Your task to perform on an android device: empty trash in the gmail app Image 0: 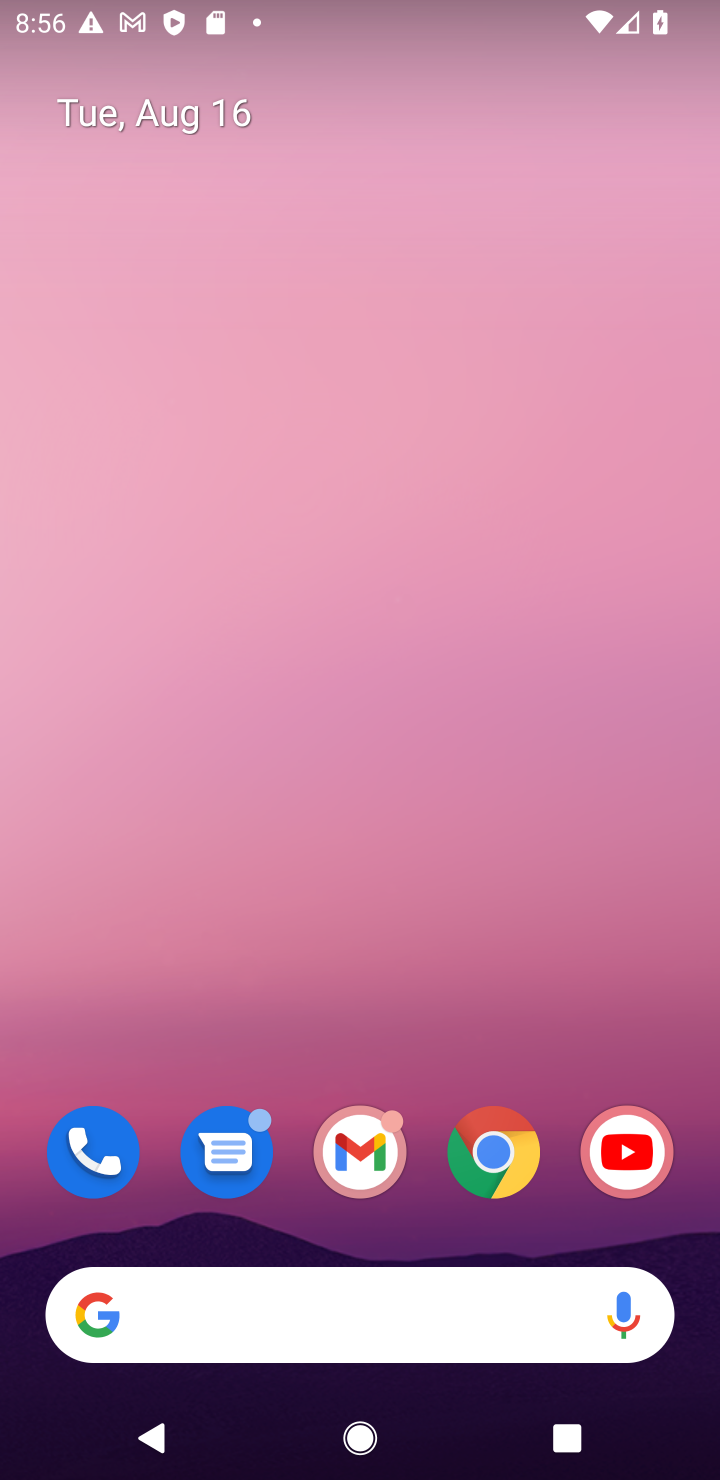
Step 0: drag from (337, 1242) to (504, 304)
Your task to perform on an android device: empty trash in the gmail app Image 1: 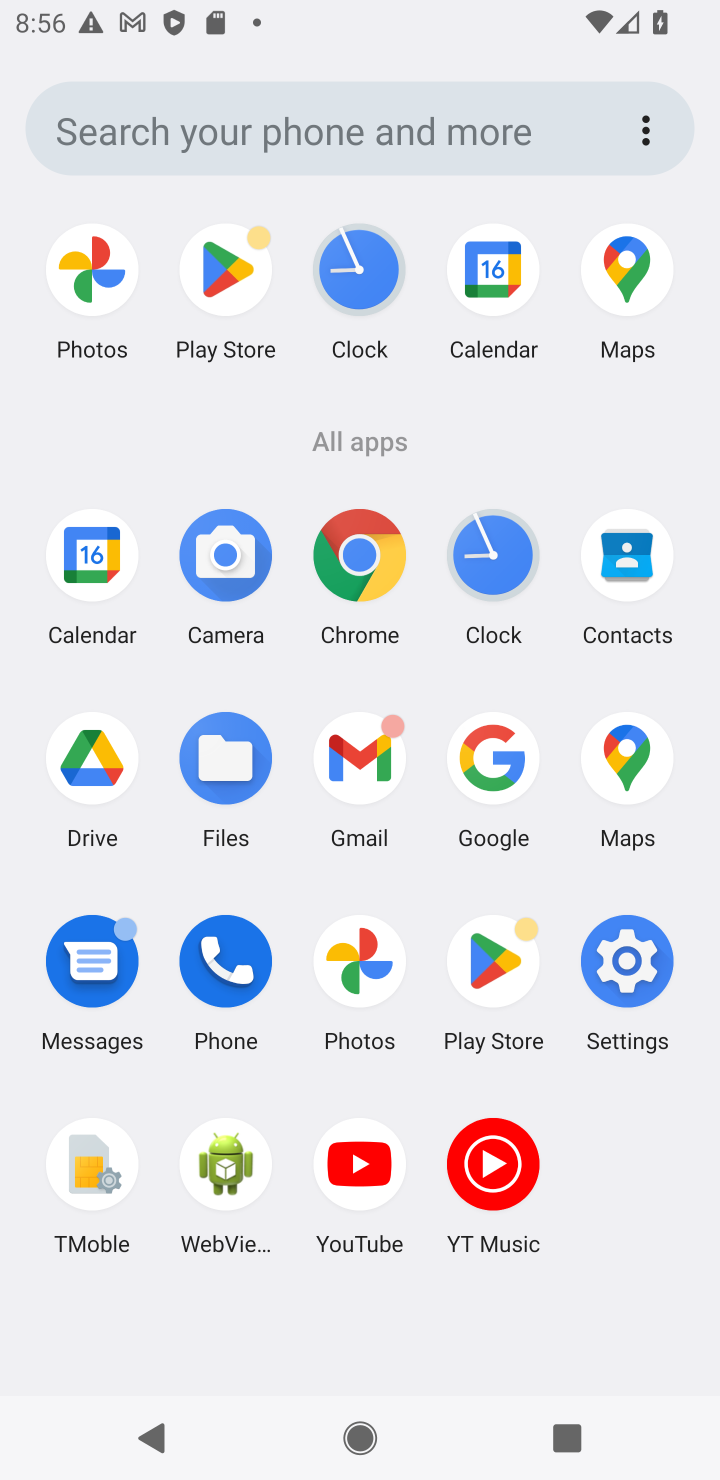
Step 1: click (372, 753)
Your task to perform on an android device: empty trash in the gmail app Image 2: 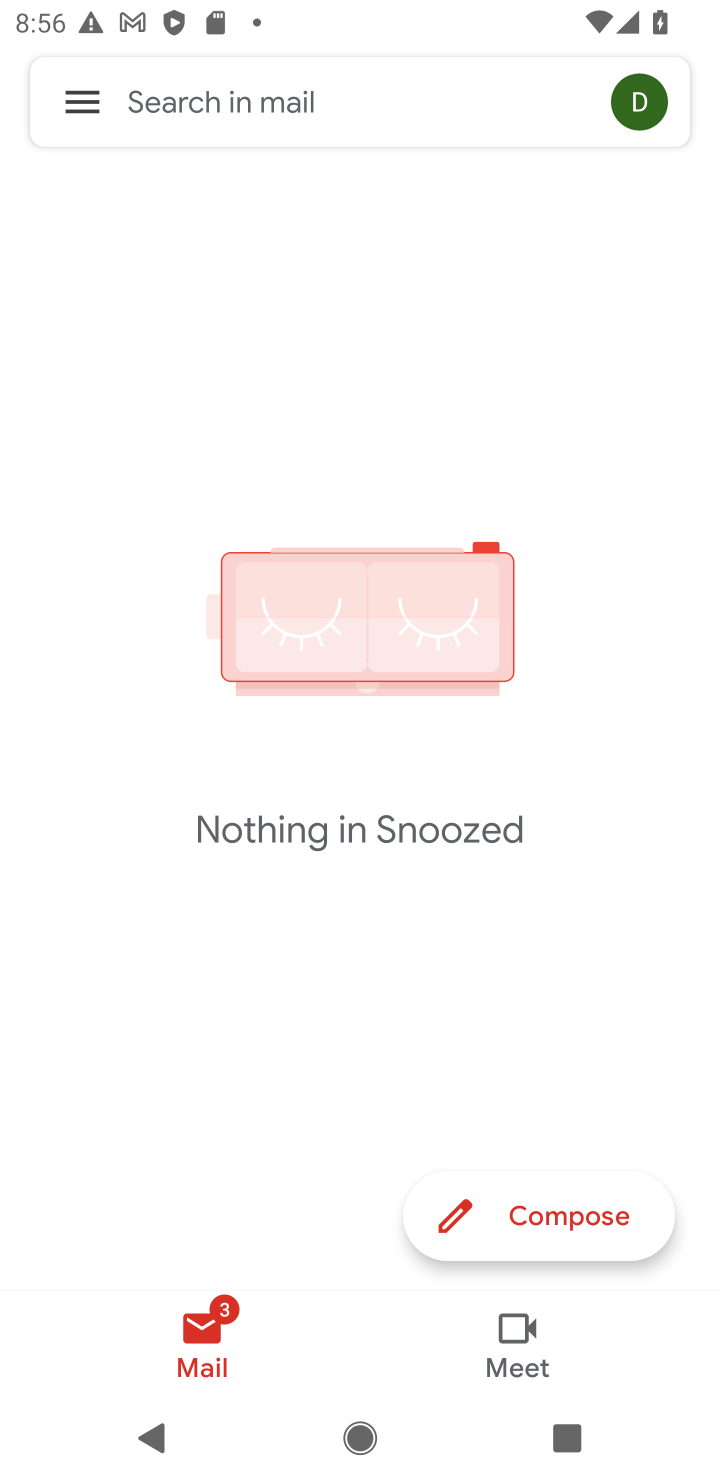
Step 2: click (49, 87)
Your task to perform on an android device: empty trash in the gmail app Image 3: 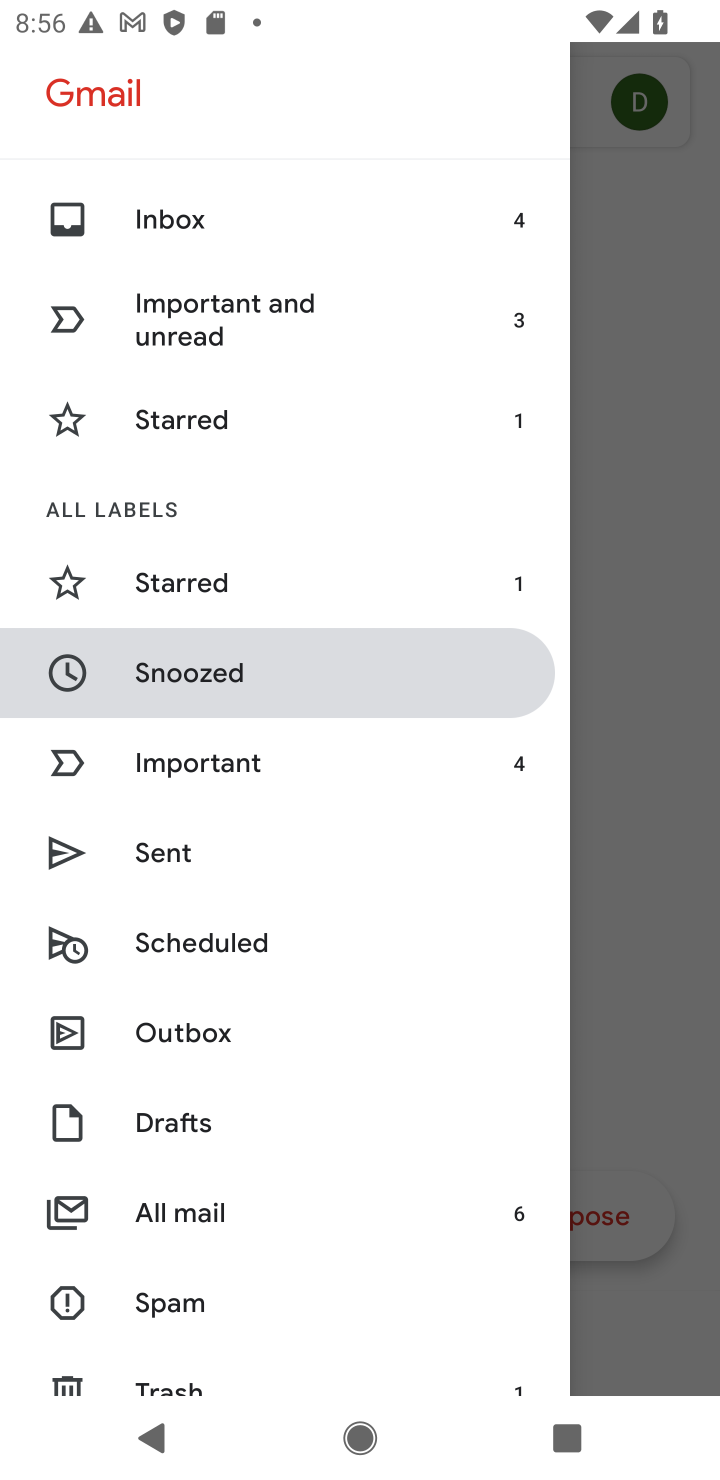
Step 3: drag from (244, 1157) to (332, 672)
Your task to perform on an android device: empty trash in the gmail app Image 4: 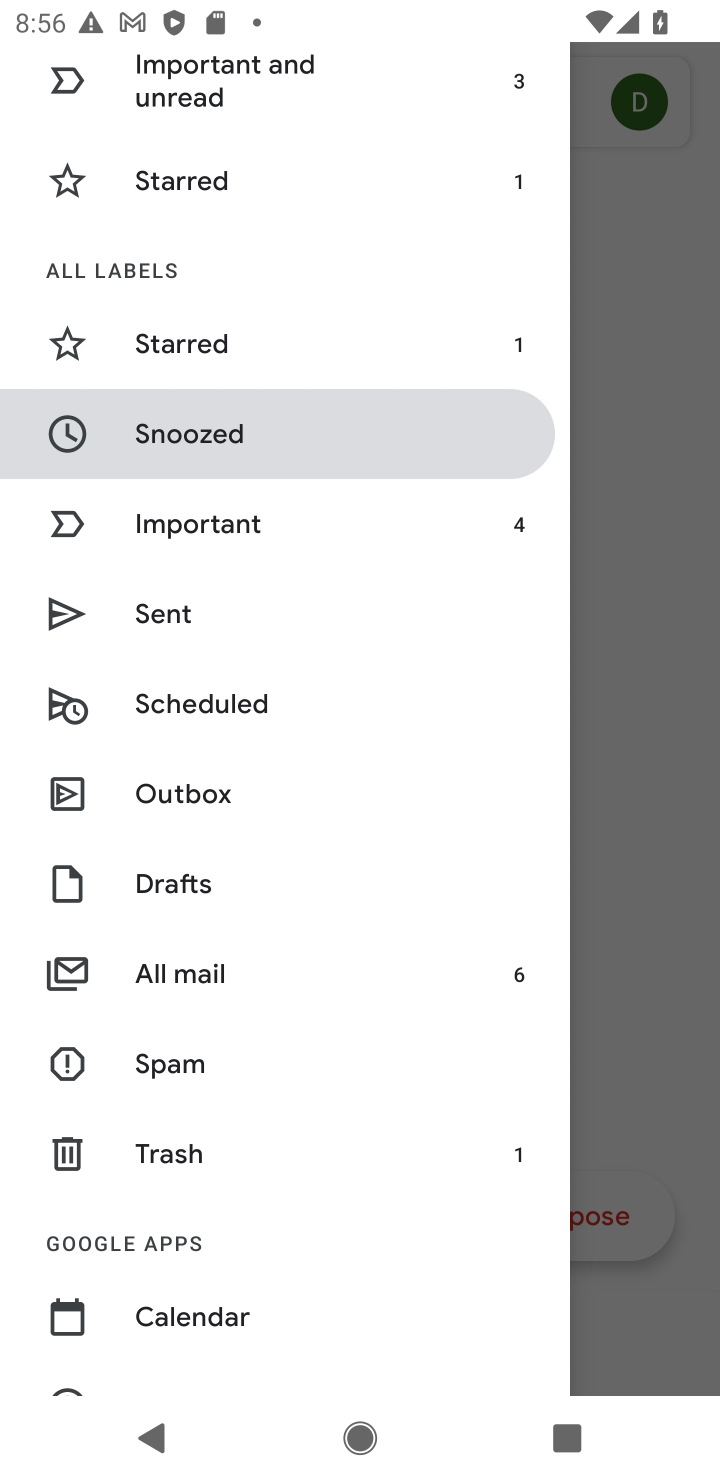
Step 4: click (214, 1123)
Your task to perform on an android device: empty trash in the gmail app Image 5: 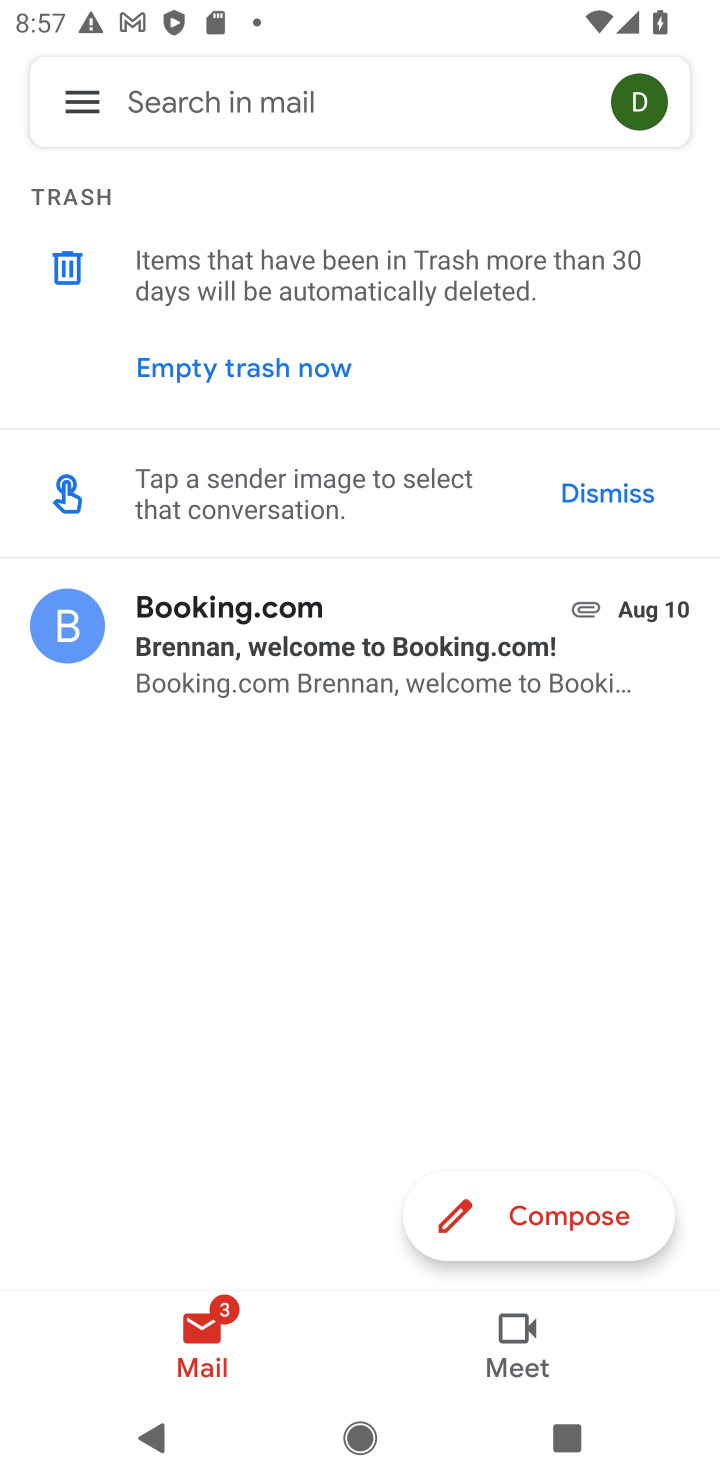
Step 5: click (305, 365)
Your task to perform on an android device: empty trash in the gmail app Image 6: 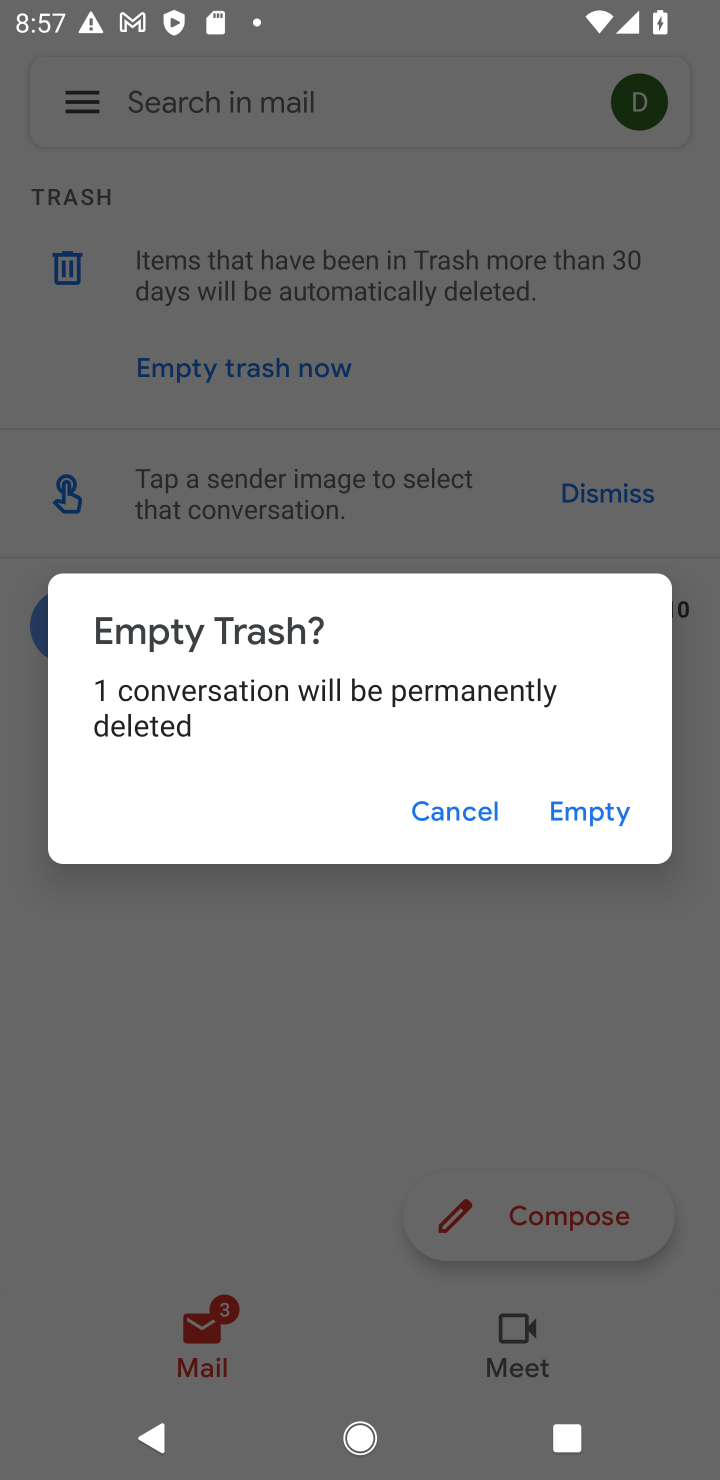
Step 6: click (591, 801)
Your task to perform on an android device: empty trash in the gmail app Image 7: 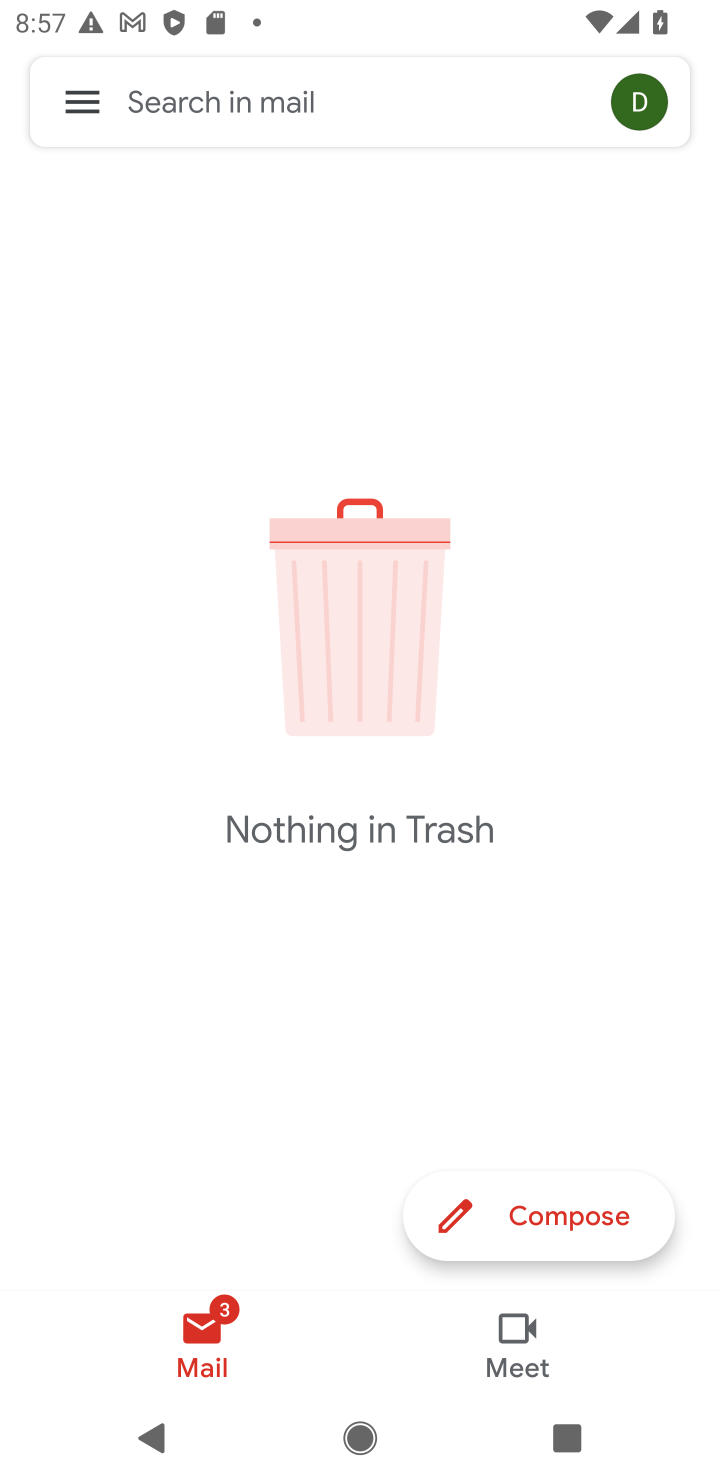
Step 7: task complete